Your task to perform on an android device: uninstall "Venmo" Image 0: 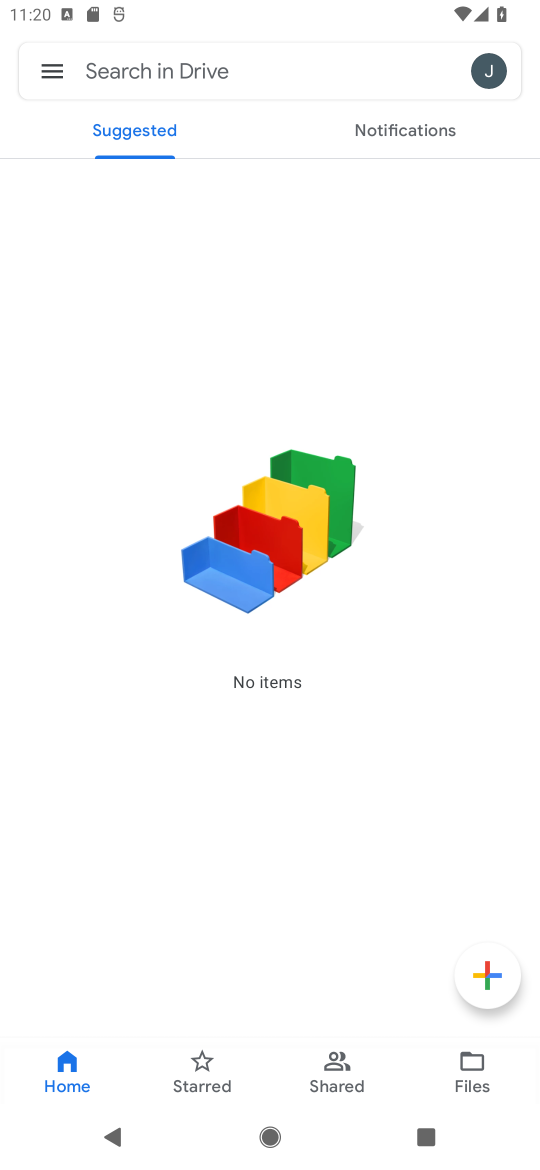
Step 0: press home button
Your task to perform on an android device: uninstall "Venmo" Image 1: 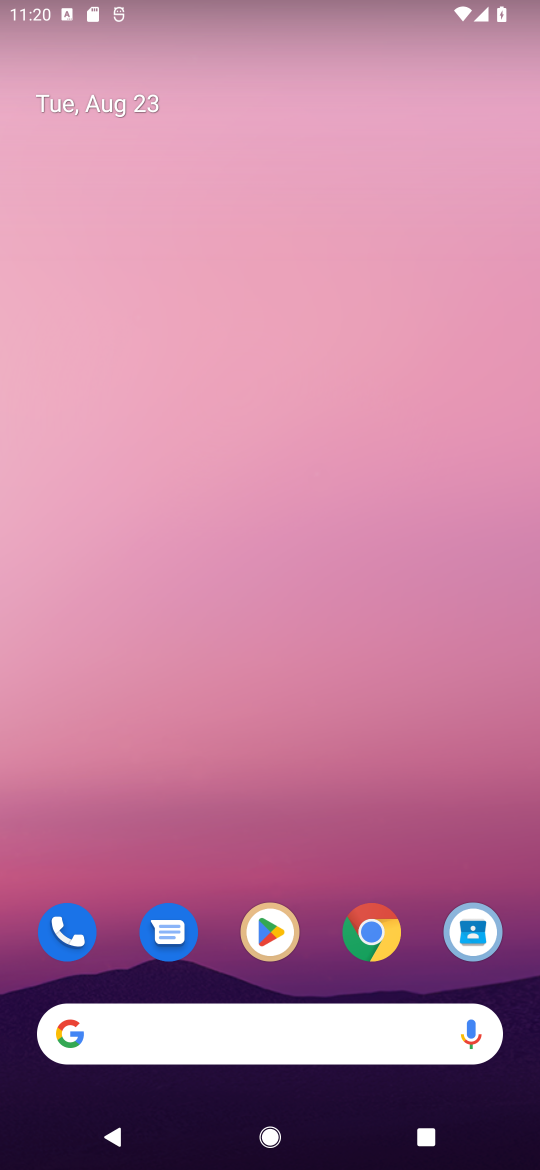
Step 1: click (259, 939)
Your task to perform on an android device: uninstall "Venmo" Image 2: 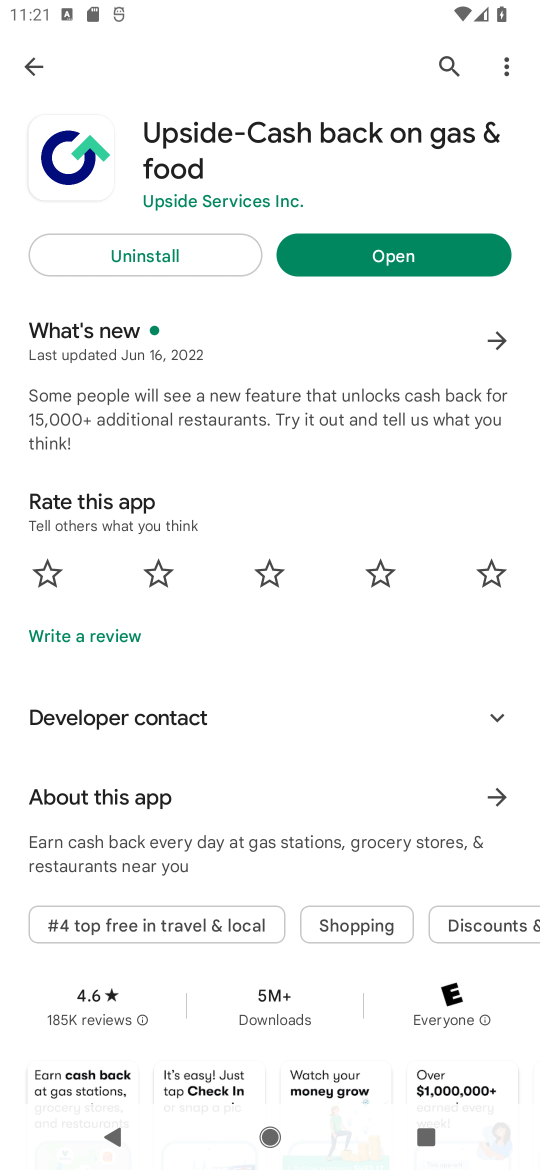
Step 2: click (441, 50)
Your task to perform on an android device: uninstall "Venmo" Image 3: 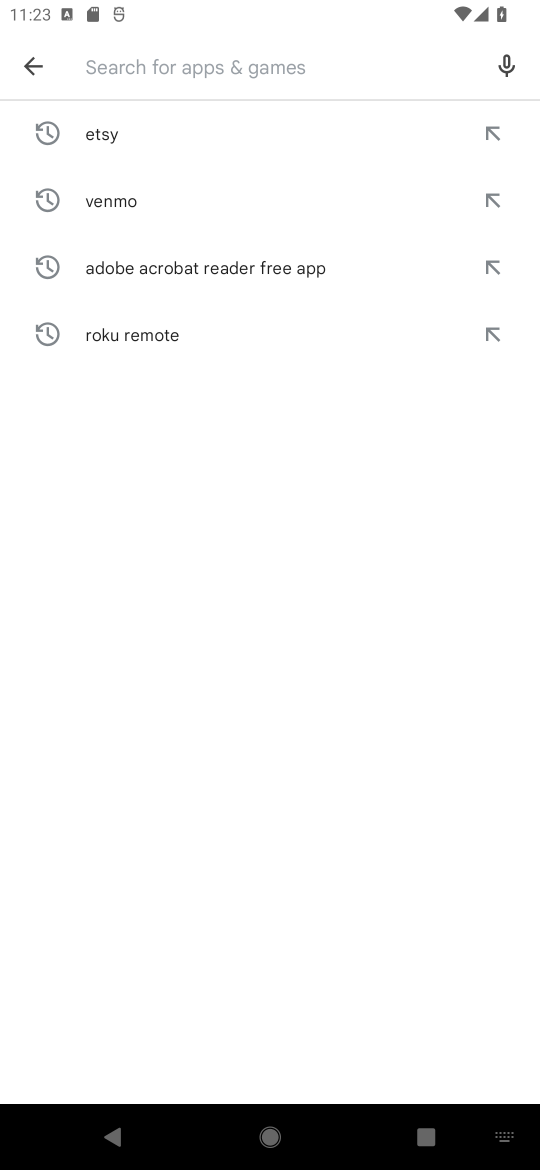
Step 3: click (90, 69)
Your task to perform on an android device: uninstall "Venmo" Image 4: 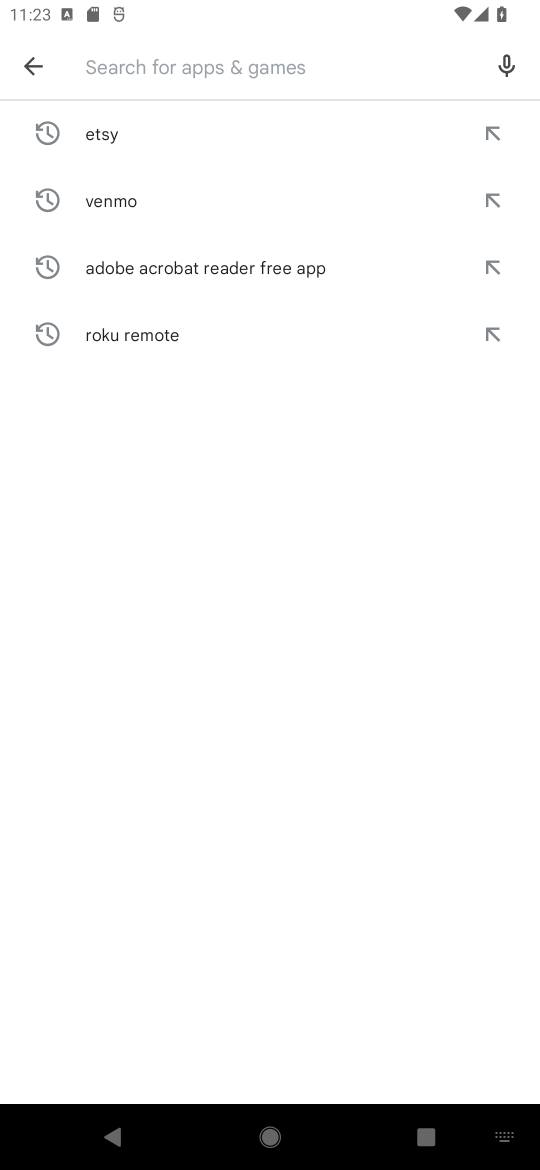
Step 4: type "Venmo"
Your task to perform on an android device: uninstall "Venmo" Image 5: 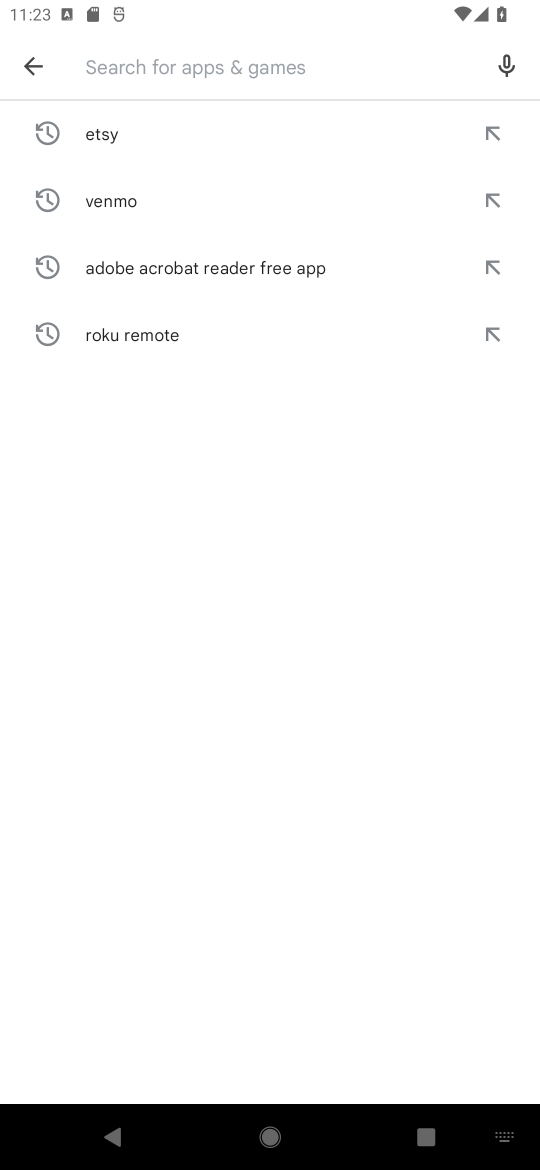
Step 5: click (261, 688)
Your task to perform on an android device: uninstall "Venmo" Image 6: 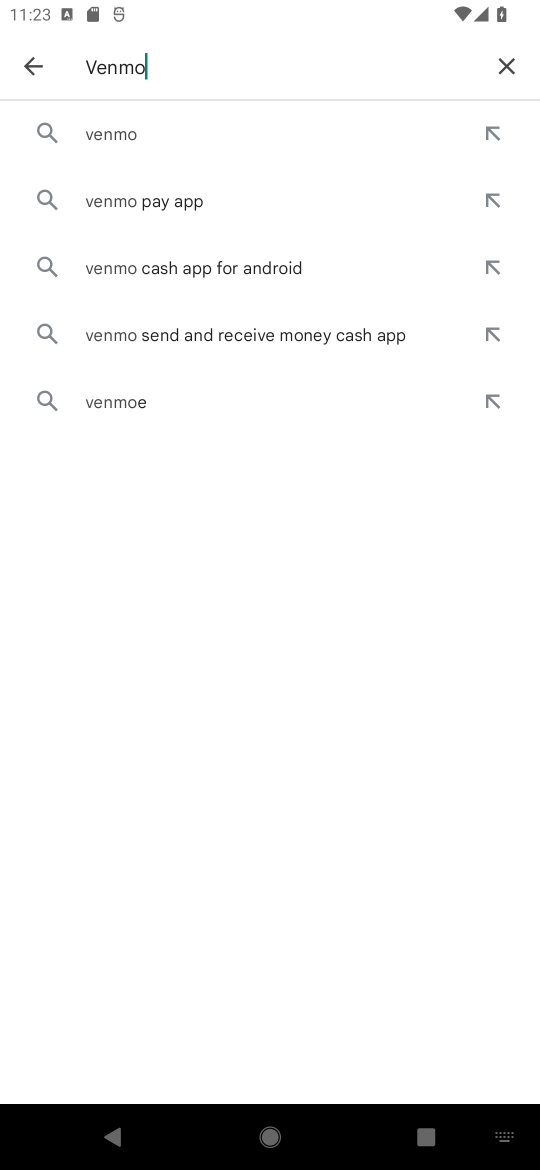
Step 6: click (135, 122)
Your task to perform on an android device: uninstall "Venmo" Image 7: 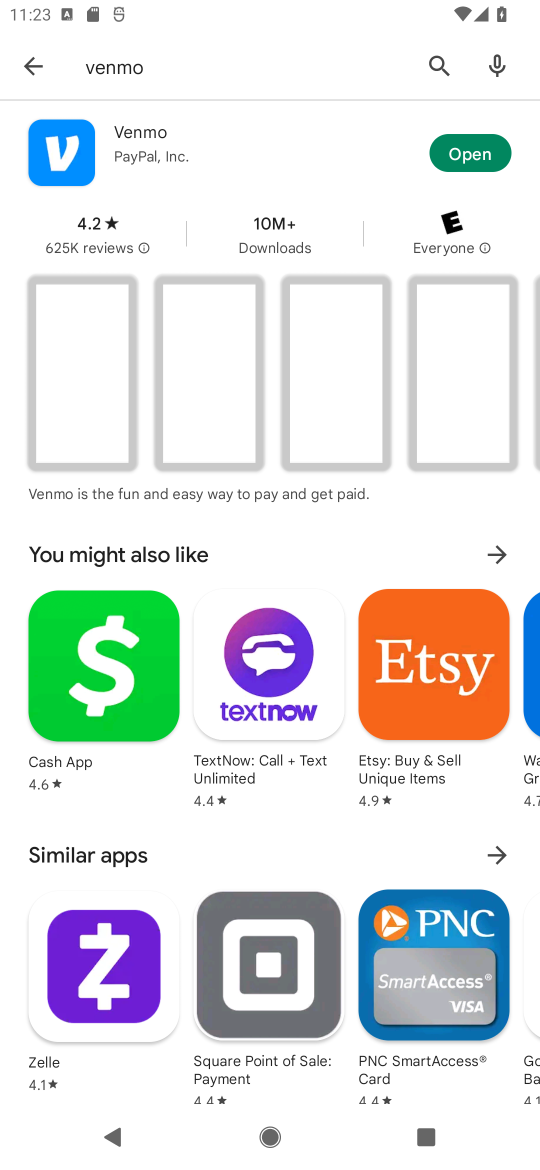
Step 7: click (139, 141)
Your task to perform on an android device: uninstall "Venmo" Image 8: 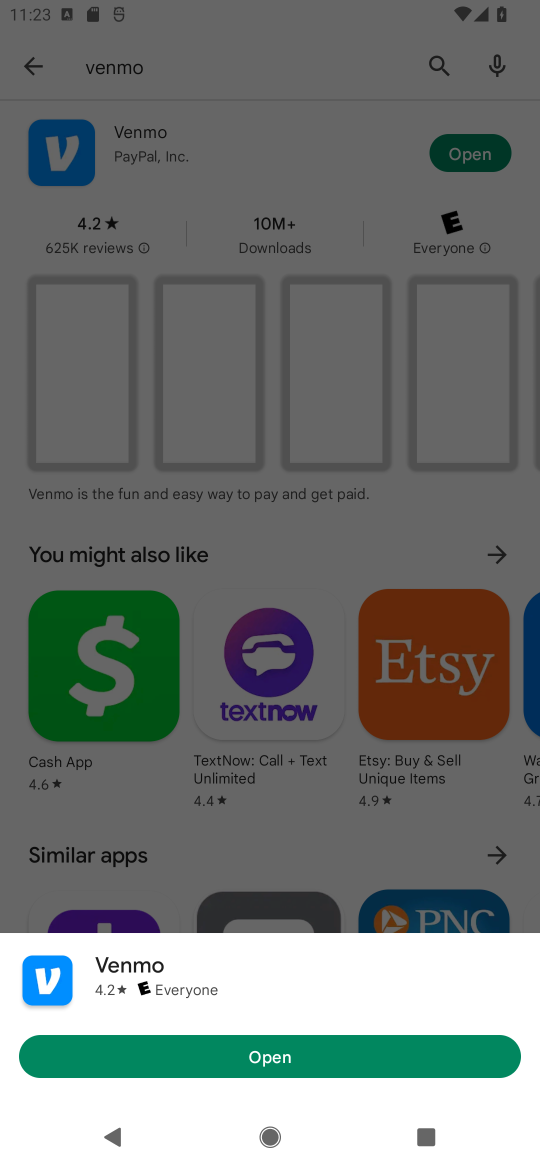
Step 8: click (176, 148)
Your task to perform on an android device: uninstall "Venmo" Image 9: 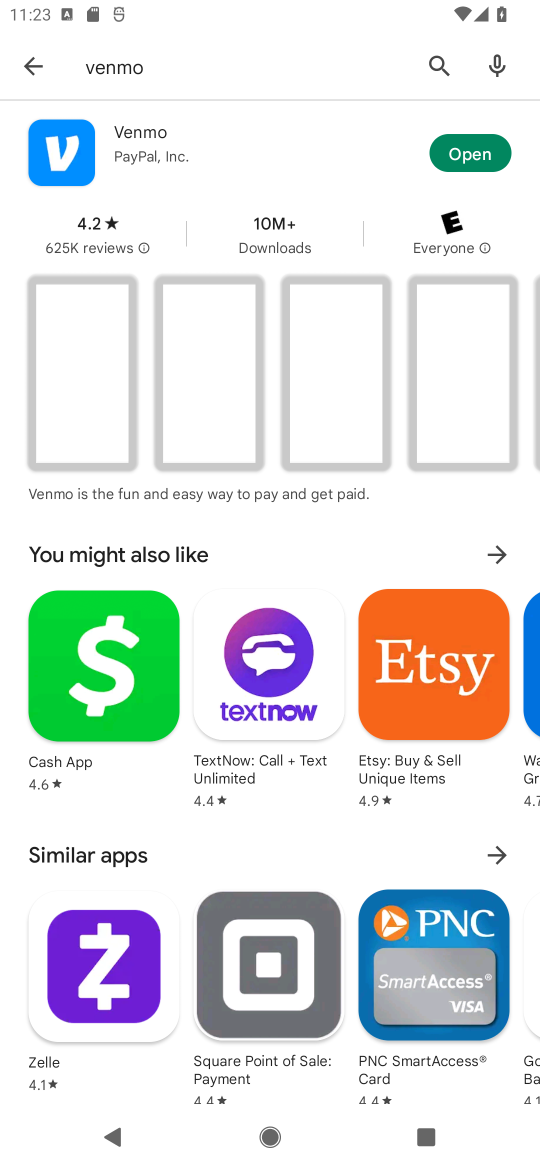
Step 9: click (138, 131)
Your task to perform on an android device: uninstall "Venmo" Image 10: 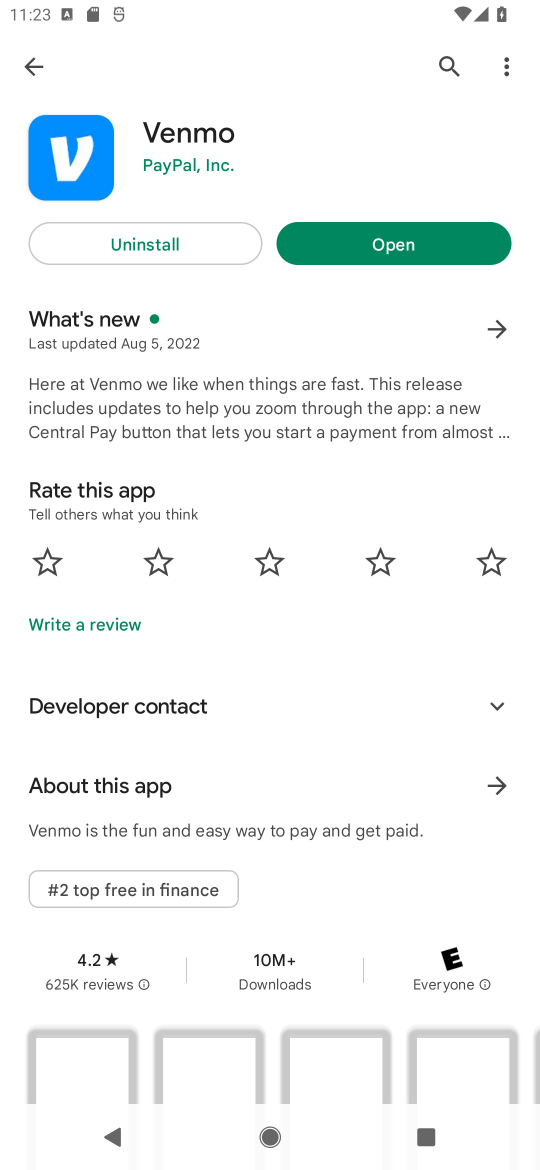
Step 10: click (143, 239)
Your task to perform on an android device: uninstall "Venmo" Image 11: 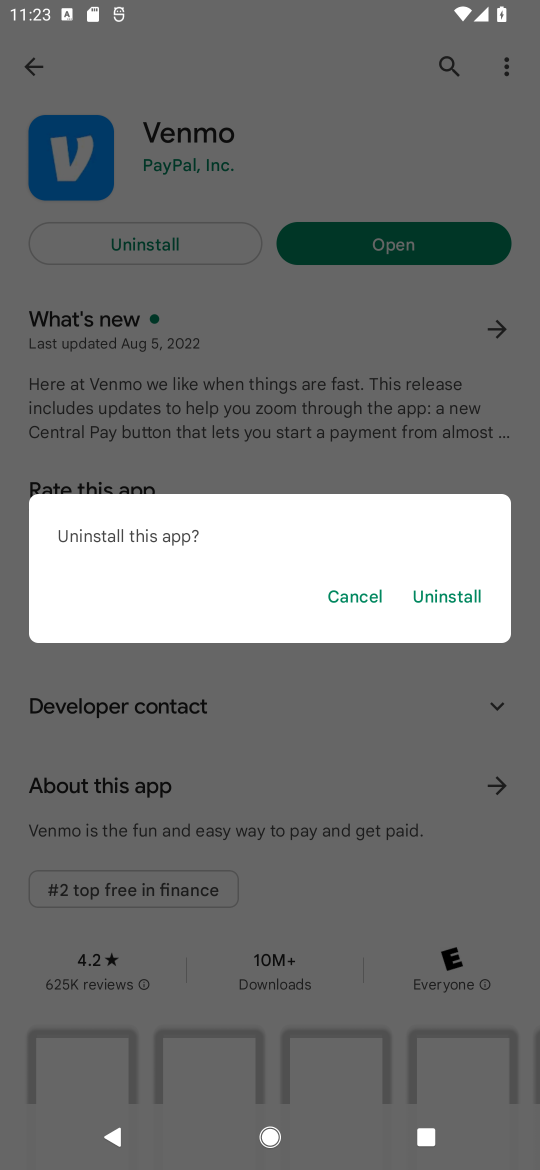
Step 11: click (469, 600)
Your task to perform on an android device: uninstall "Venmo" Image 12: 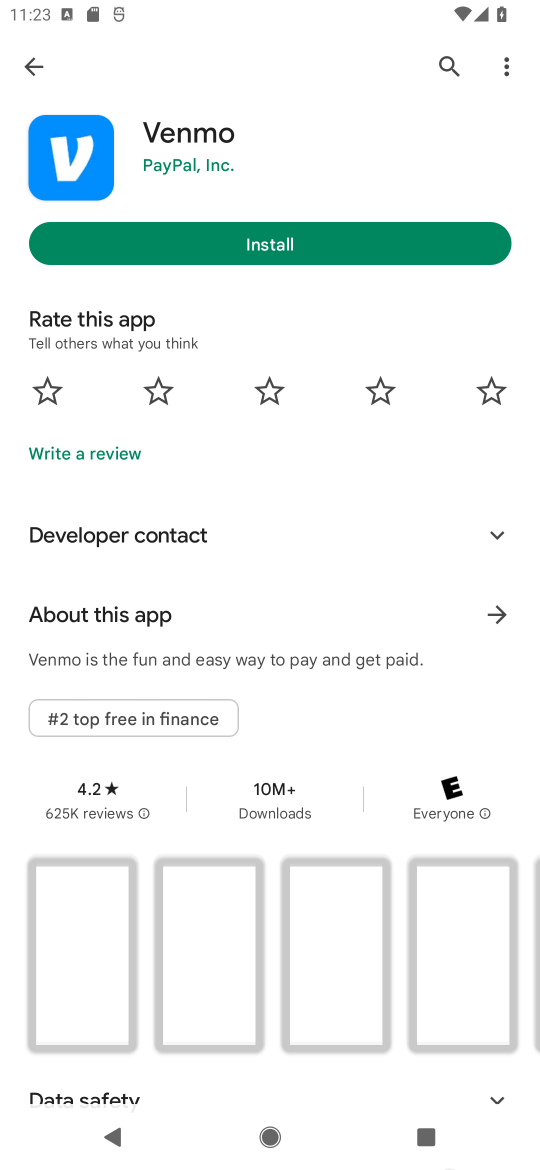
Step 12: task complete